Your task to perform on an android device: change the clock display to analog Image 0: 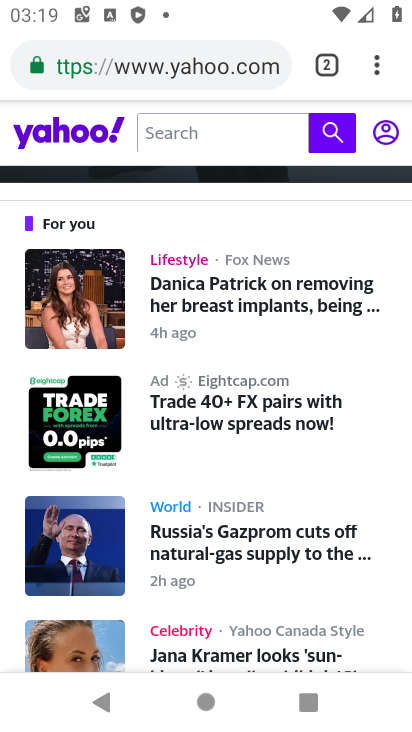
Step 0: press home button
Your task to perform on an android device: change the clock display to analog Image 1: 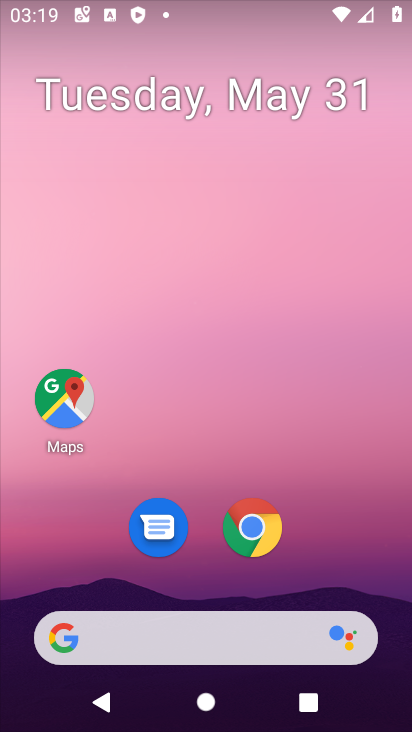
Step 1: drag from (393, 615) to (337, 107)
Your task to perform on an android device: change the clock display to analog Image 2: 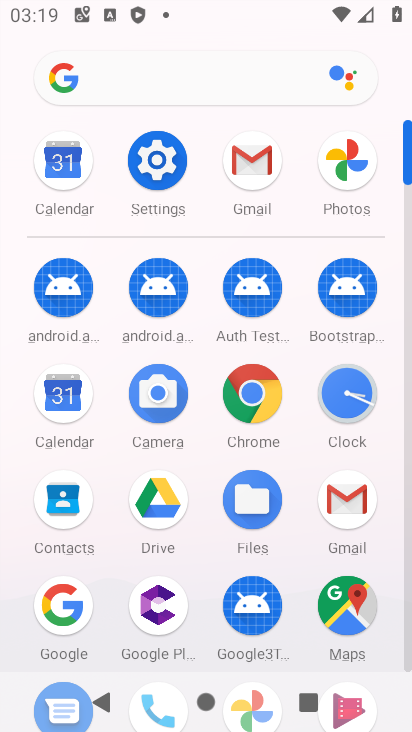
Step 2: click (348, 393)
Your task to perform on an android device: change the clock display to analog Image 3: 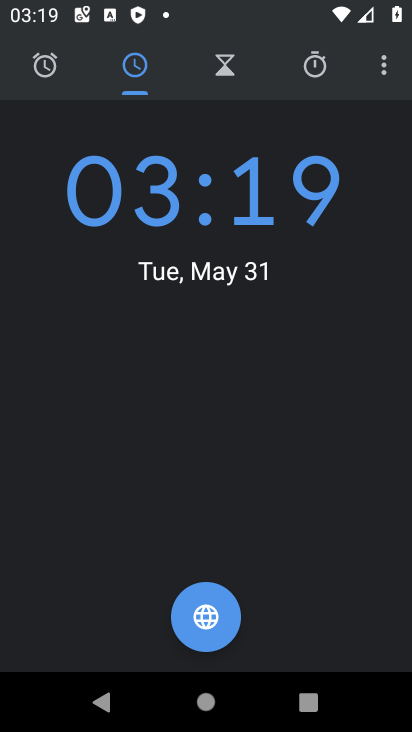
Step 3: click (381, 72)
Your task to perform on an android device: change the clock display to analog Image 4: 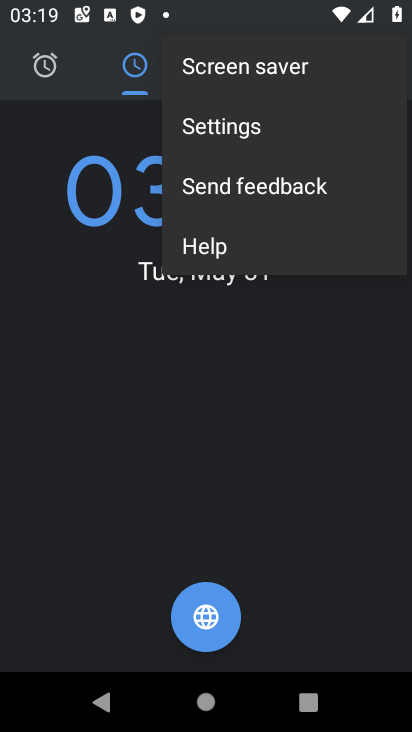
Step 4: click (207, 124)
Your task to perform on an android device: change the clock display to analog Image 5: 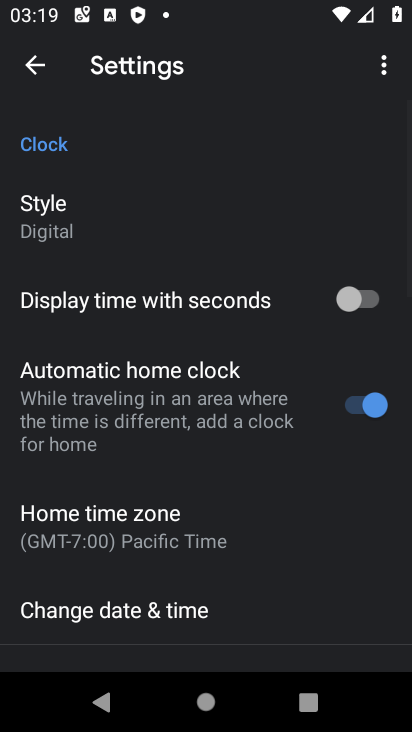
Step 5: click (24, 205)
Your task to perform on an android device: change the clock display to analog Image 6: 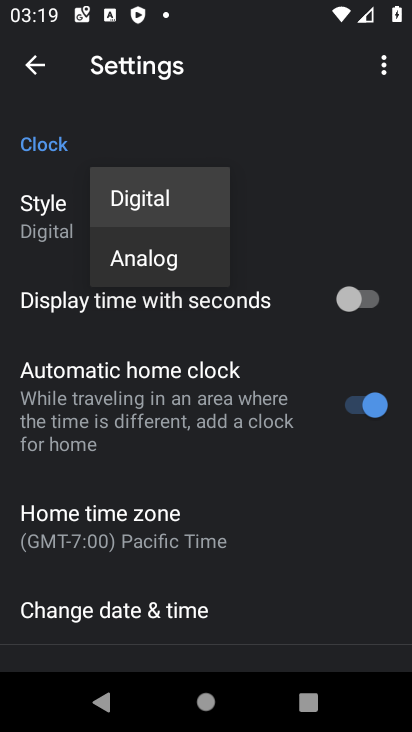
Step 6: click (142, 260)
Your task to perform on an android device: change the clock display to analog Image 7: 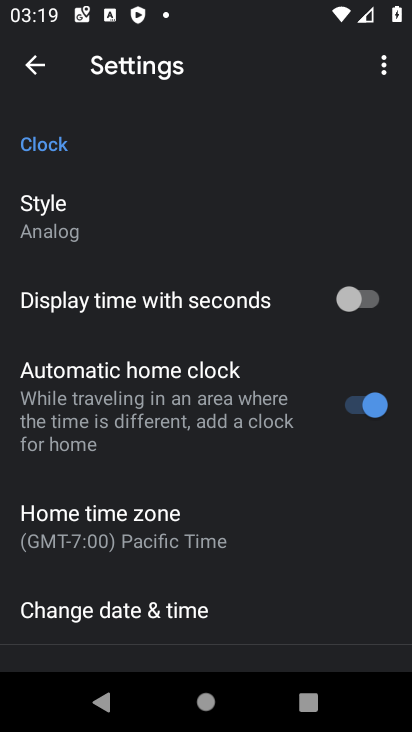
Step 7: task complete